Your task to perform on an android device: What's the weather today? Image 0: 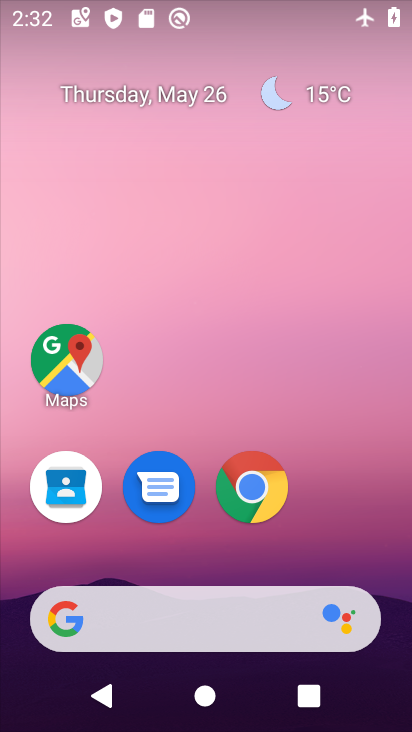
Step 0: drag from (201, 557) to (210, 176)
Your task to perform on an android device: What's the weather today? Image 1: 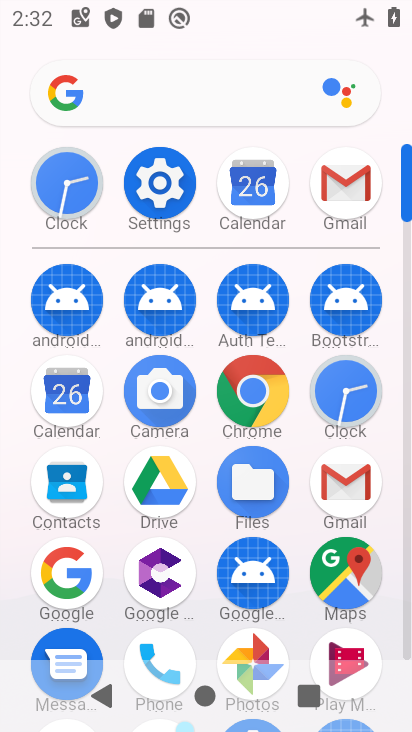
Step 1: click (56, 571)
Your task to perform on an android device: What's the weather today? Image 2: 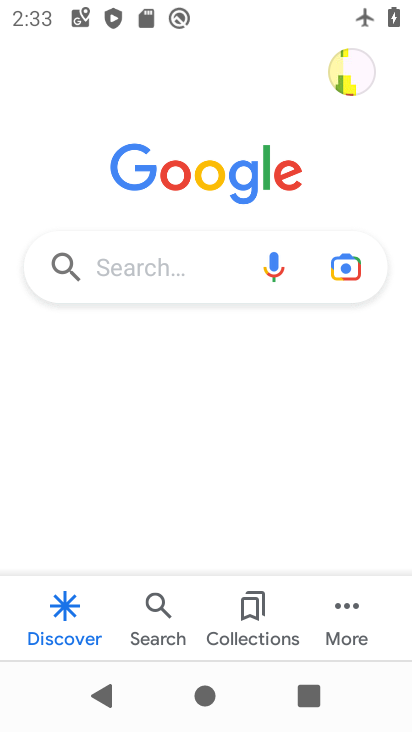
Step 2: click (158, 269)
Your task to perform on an android device: What's the weather today? Image 3: 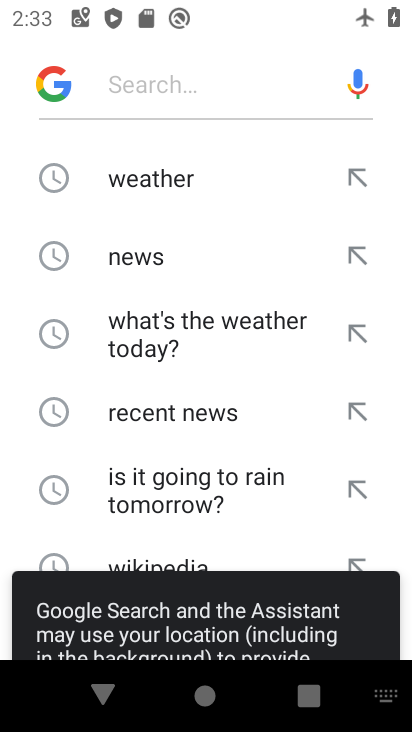
Step 3: click (177, 177)
Your task to perform on an android device: What's the weather today? Image 4: 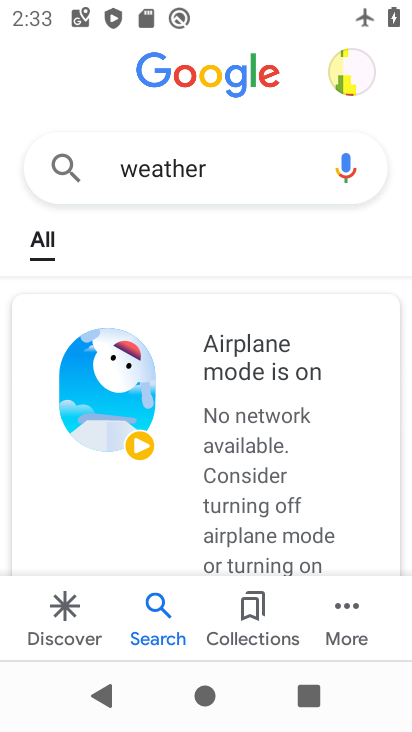
Step 4: task complete